Your task to perform on an android device: change keyboard looks Image 0: 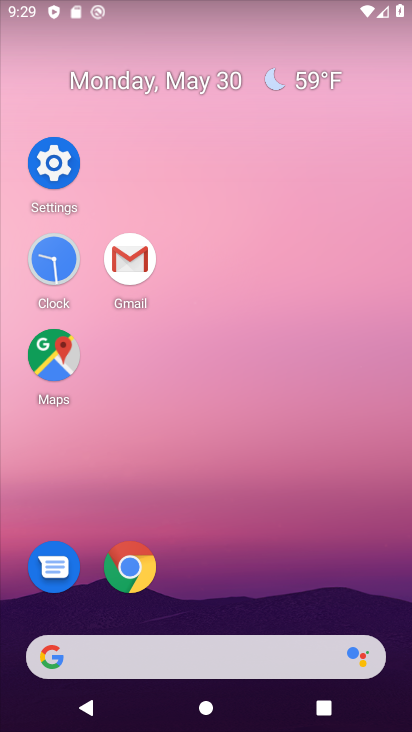
Step 0: click (60, 166)
Your task to perform on an android device: change keyboard looks Image 1: 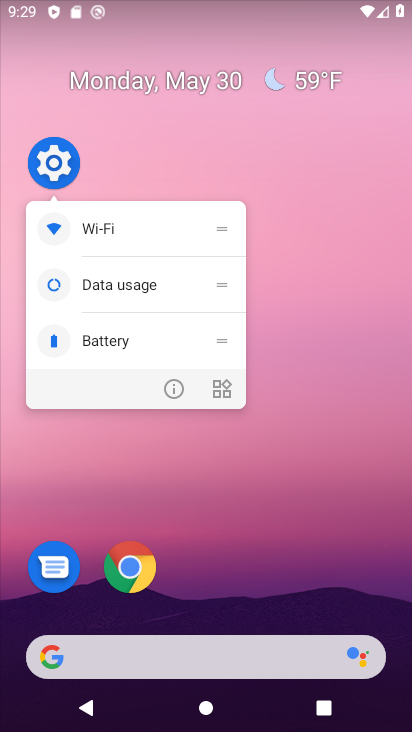
Step 1: click (71, 176)
Your task to perform on an android device: change keyboard looks Image 2: 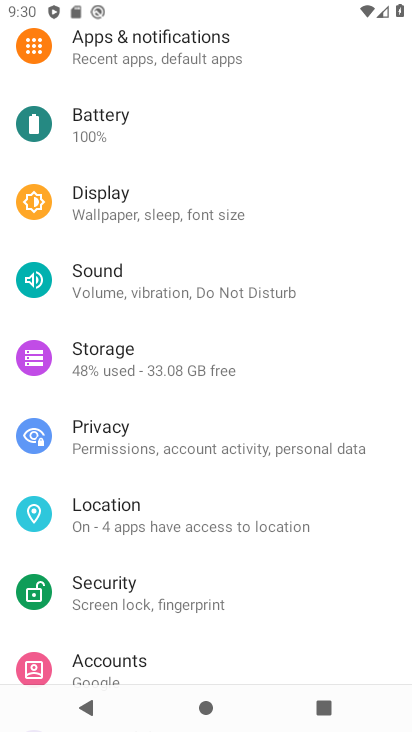
Step 2: drag from (278, 614) to (227, 77)
Your task to perform on an android device: change keyboard looks Image 3: 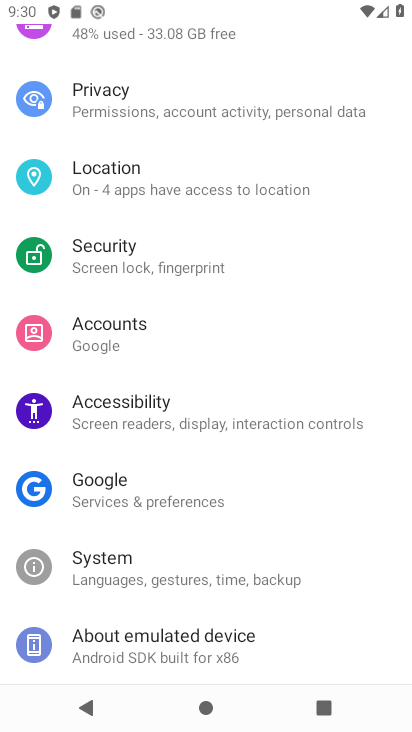
Step 3: click (258, 568)
Your task to perform on an android device: change keyboard looks Image 4: 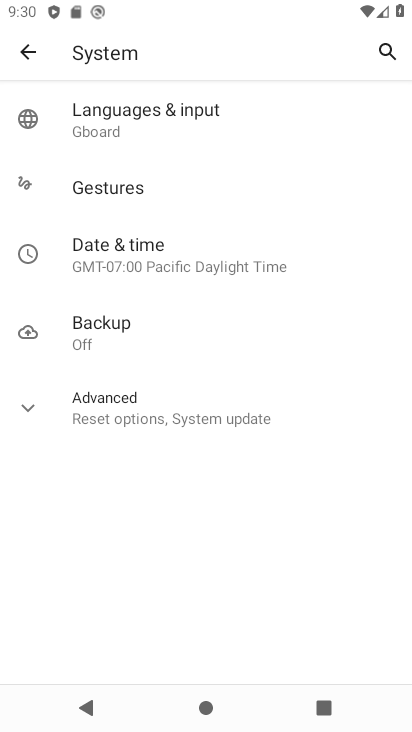
Step 4: click (194, 99)
Your task to perform on an android device: change keyboard looks Image 5: 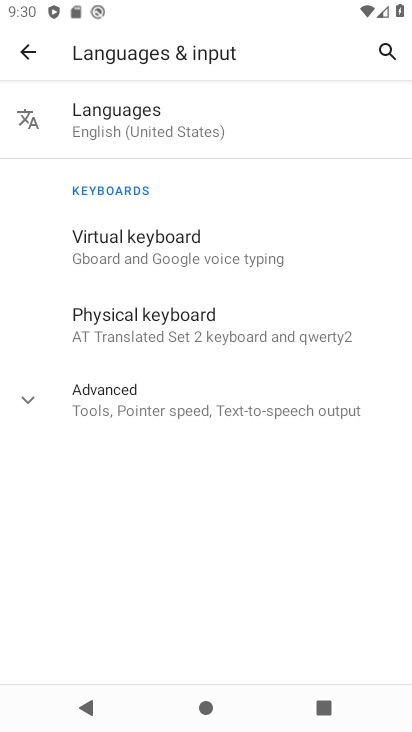
Step 5: click (235, 277)
Your task to perform on an android device: change keyboard looks Image 6: 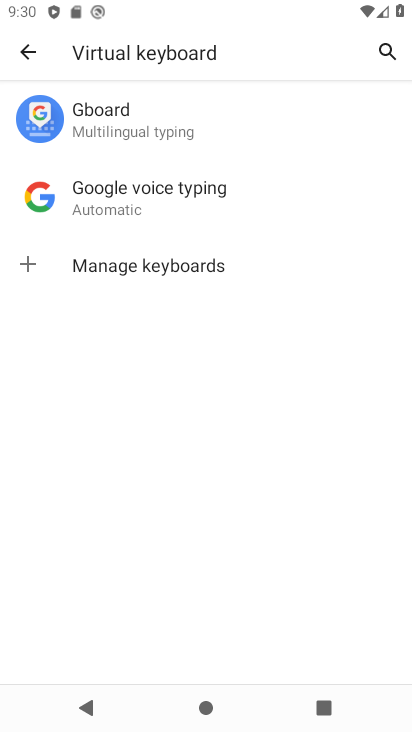
Step 6: click (175, 136)
Your task to perform on an android device: change keyboard looks Image 7: 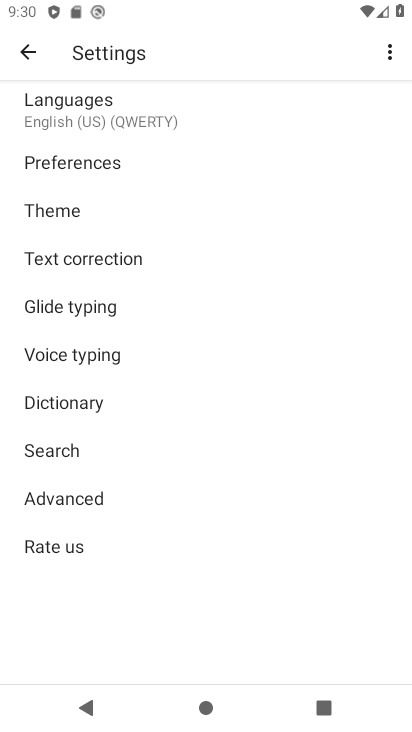
Step 7: click (106, 221)
Your task to perform on an android device: change keyboard looks Image 8: 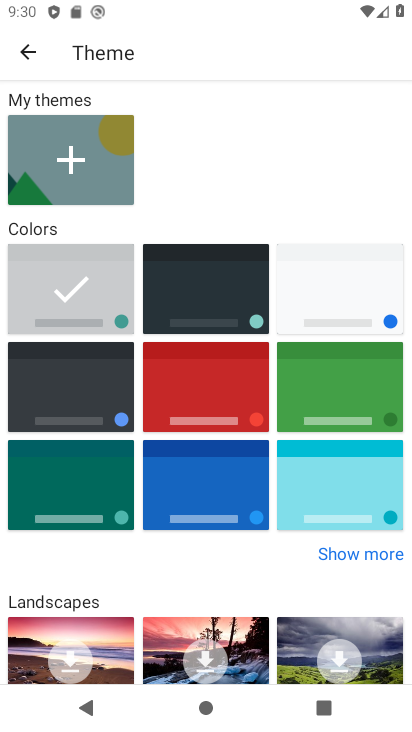
Step 8: click (247, 325)
Your task to perform on an android device: change keyboard looks Image 9: 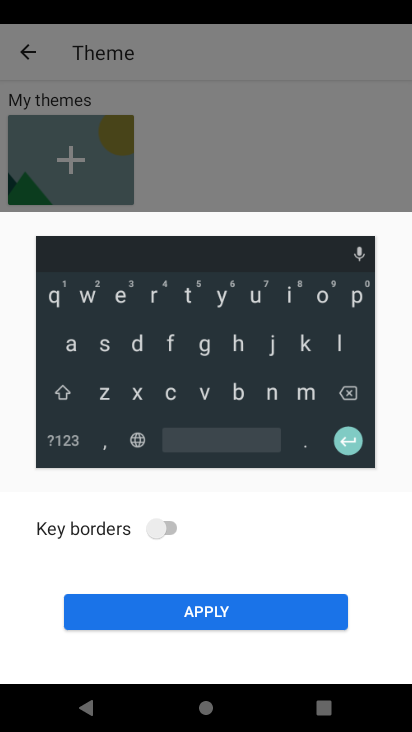
Step 9: click (168, 531)
Your task to perform on an android device: change keyboard looks Image 10: 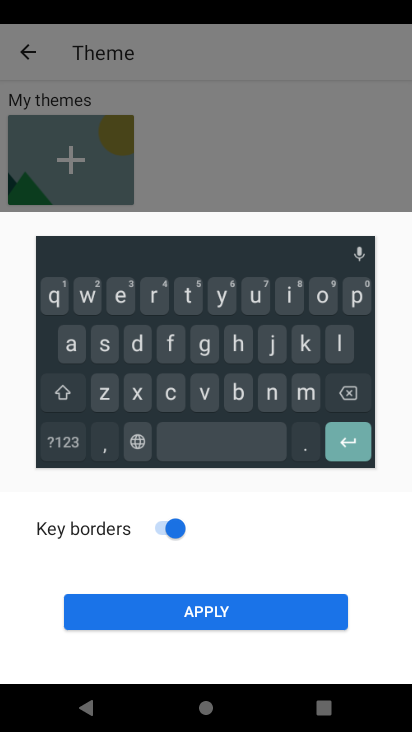
Step 10: click (316, 624)
Your task to perform on an android device: change keyboard looks Image 11: 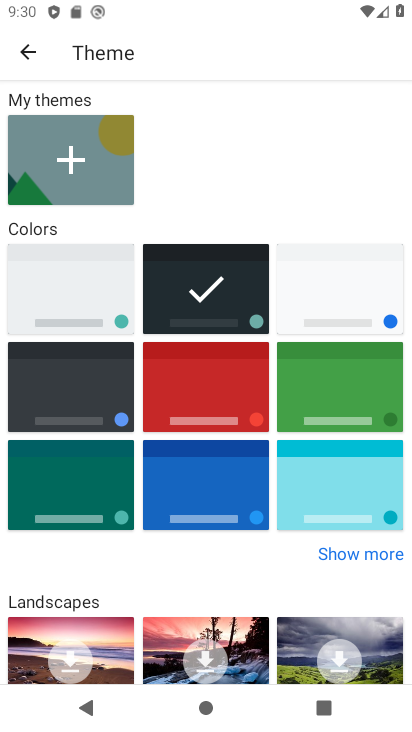
Step 11: task complete